Your task to perform on an android device: What is the recent news? Image 0: 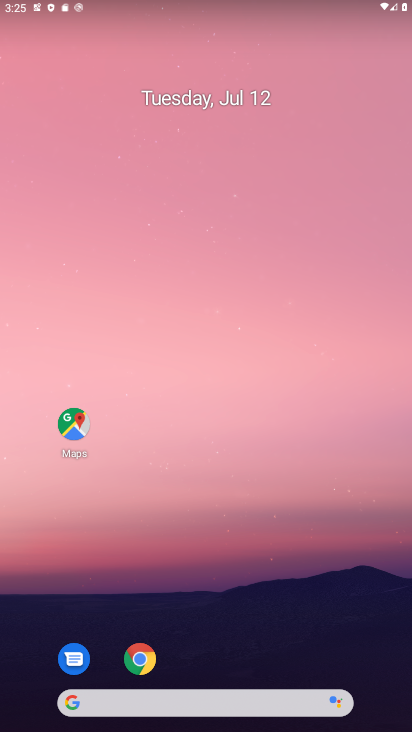
Step 0: drag from (197, 716) to (199, 126)
Your task to perform on an android device: What is the recent news? Image 1: 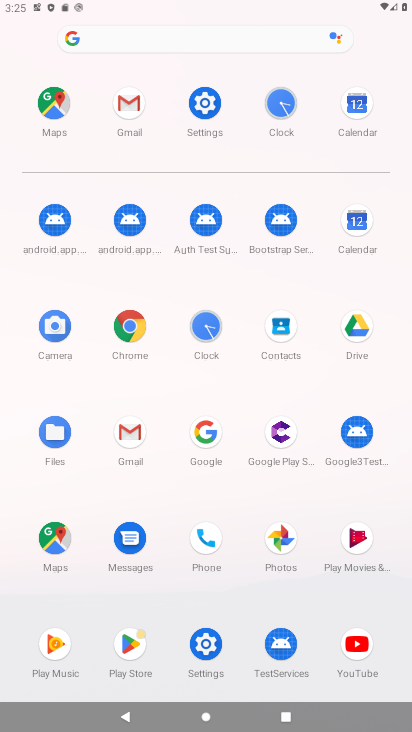
Step 1: click (206, 434)
Your task to perform on an android device: What is the recent news? Image 2: 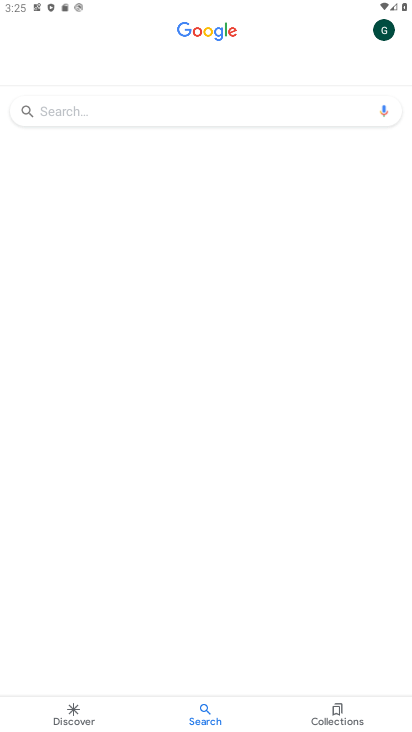
Step 2: click (62, 711)
Your task to perform on an android device: What is the recent news? Image 3: 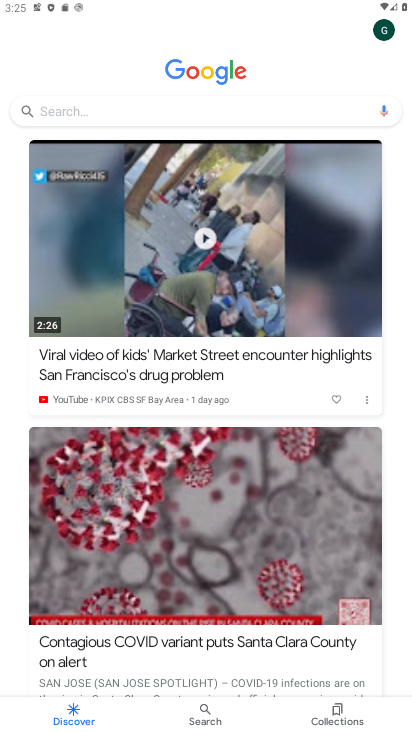
Step 3: task complete